Your task to perform on an android device: turn on airplane mode Image 0: 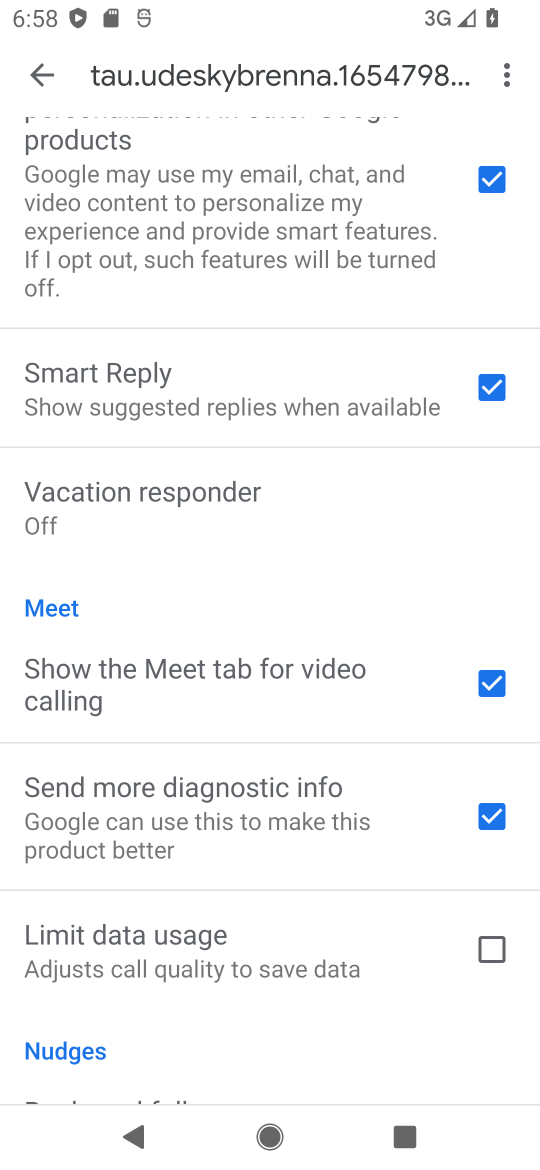
Step 0: press home button
Your task to perform on an android device: turn on airplane mode Image 1: 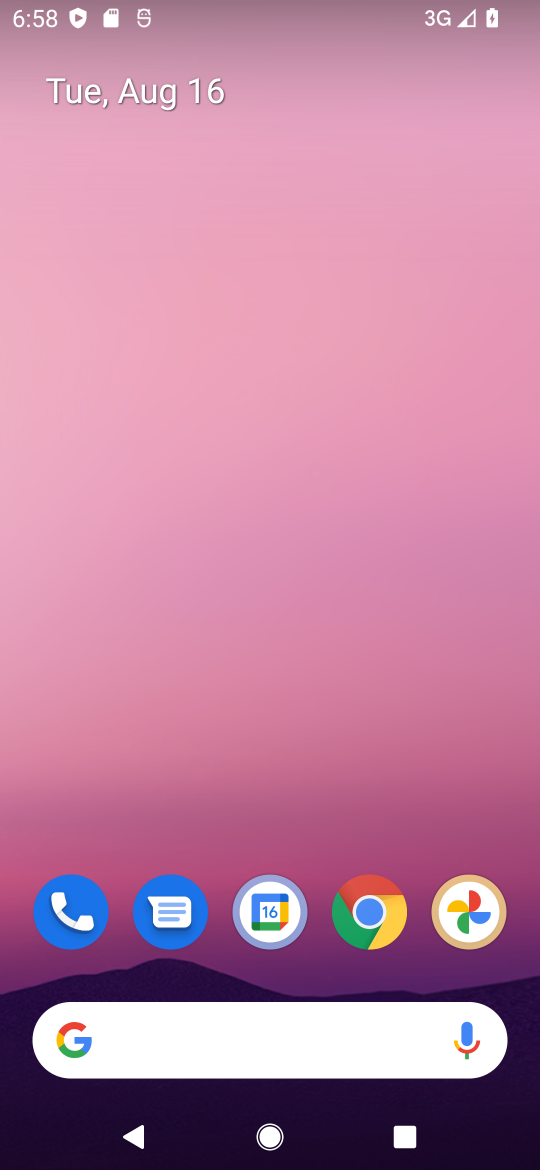
Step 1: drag from (416, 975) to (429, 151)
Your task to perform on an android device: turn on airplane mode Image 2: 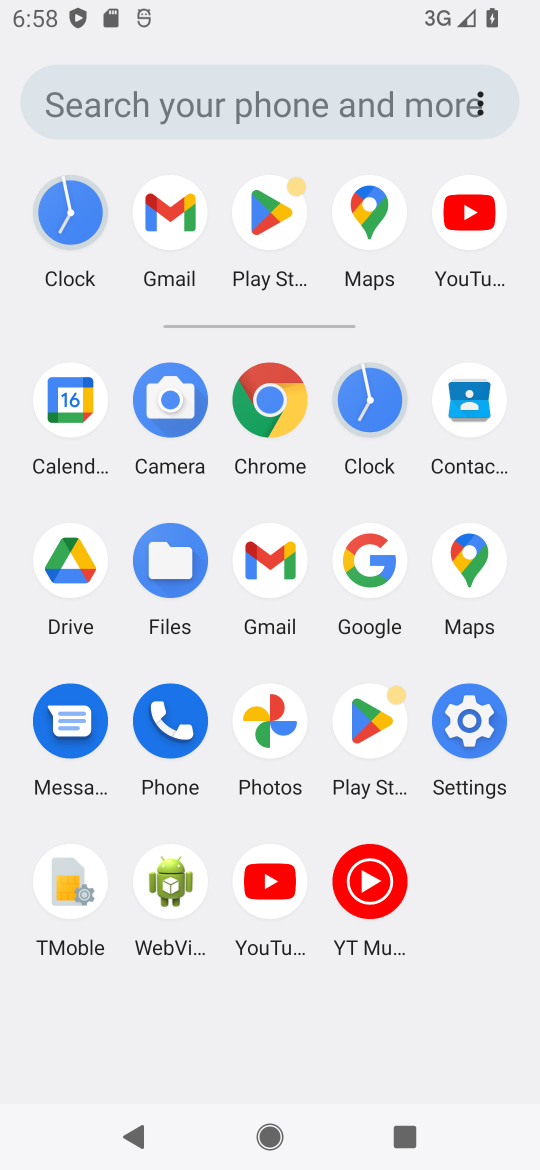
Step 2: click (468, 722)
Your task to perform on an android device: turn on airplane mode Image 3: 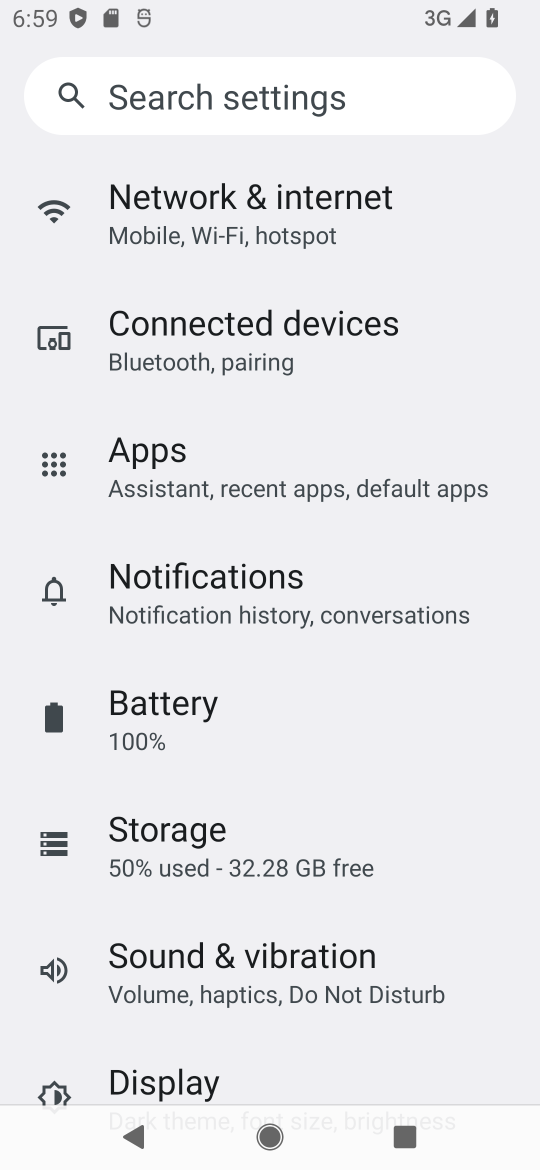
Step 3: click (186, 193)
Your task to perform on an android device: turn on airplane mode Image 4: 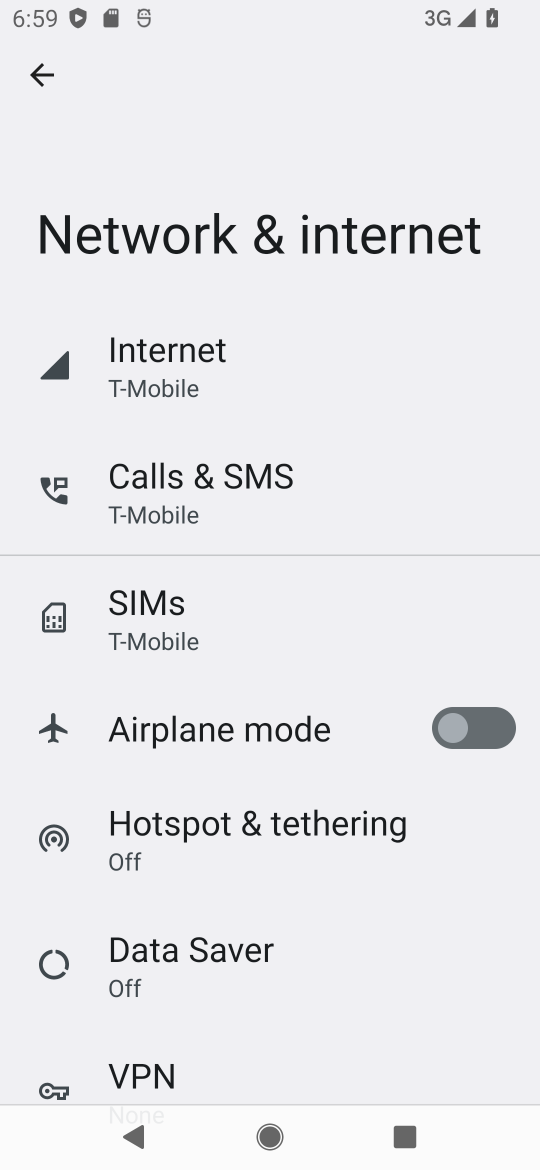
Step 4: click (491, 727)
Your task to perform on an android device: turn on airplane mode Image 5: 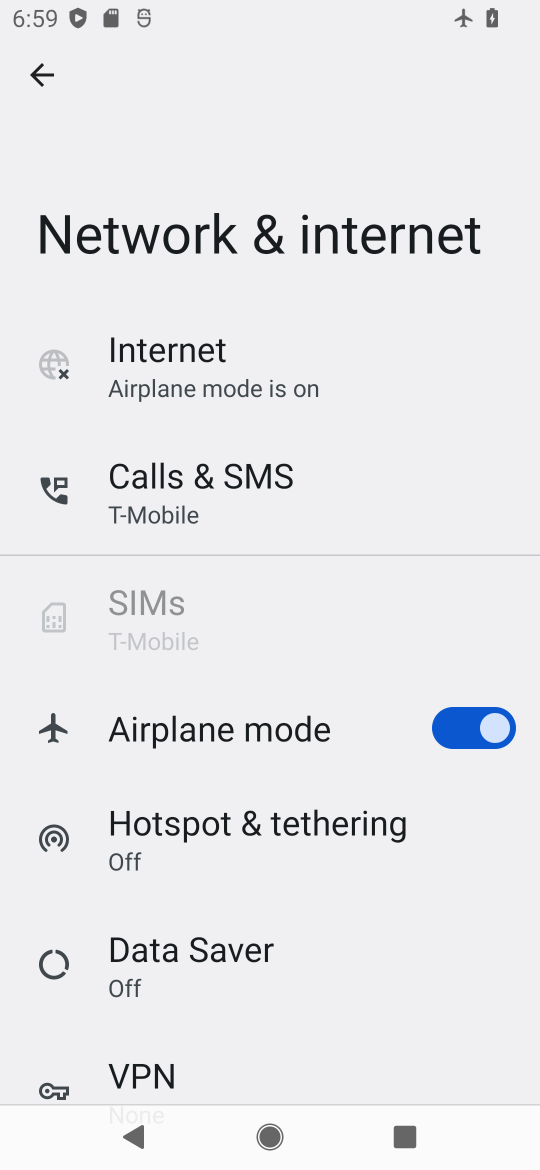
Step 5: task complete